Your task to perform on an android device: Clear the shopping cart on ebay. Search for bose quietcomfort 35 on ebay, select the first entry, and add it to the cart. Image 0: 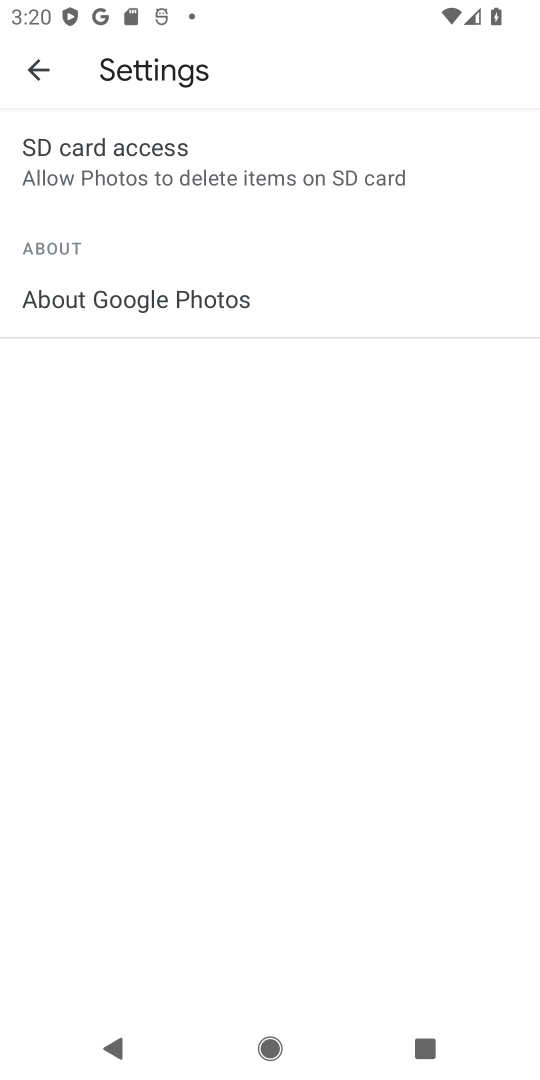
Step 0: press home button
Your task to perform on an android device: Clear the shopping cart on ebay. Search for bose quietcomfort 35 on ebay, select the first entry, and add it to the cart. Image 1: 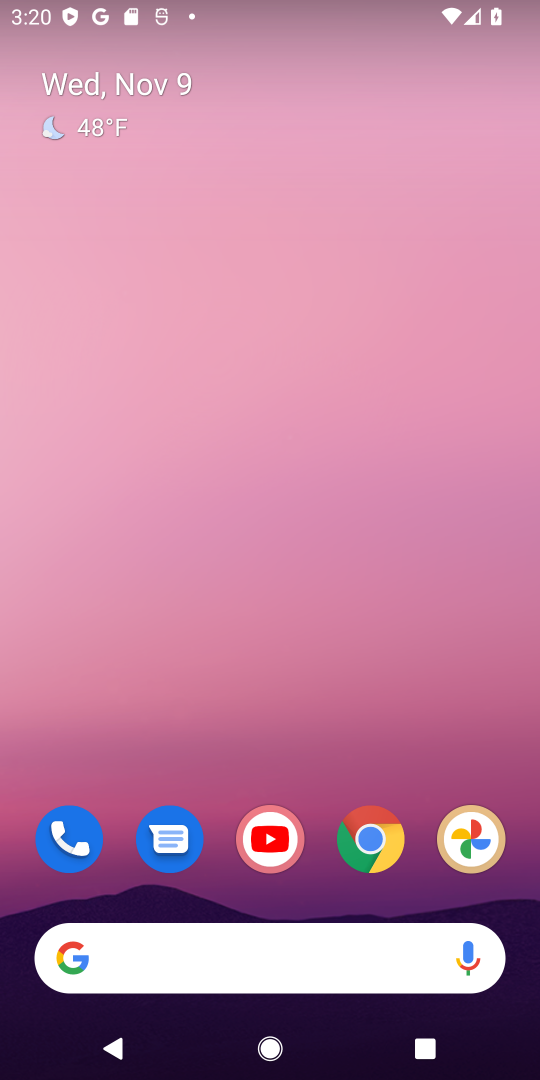
Step 1: drag from (306, 881) to (351, 236)
Your task to perform on an android device: Clear the shopping cart on ebay. Search for bose quietcomfort 35 on ebay, select the first entry, and add it to the cart. Image 2: 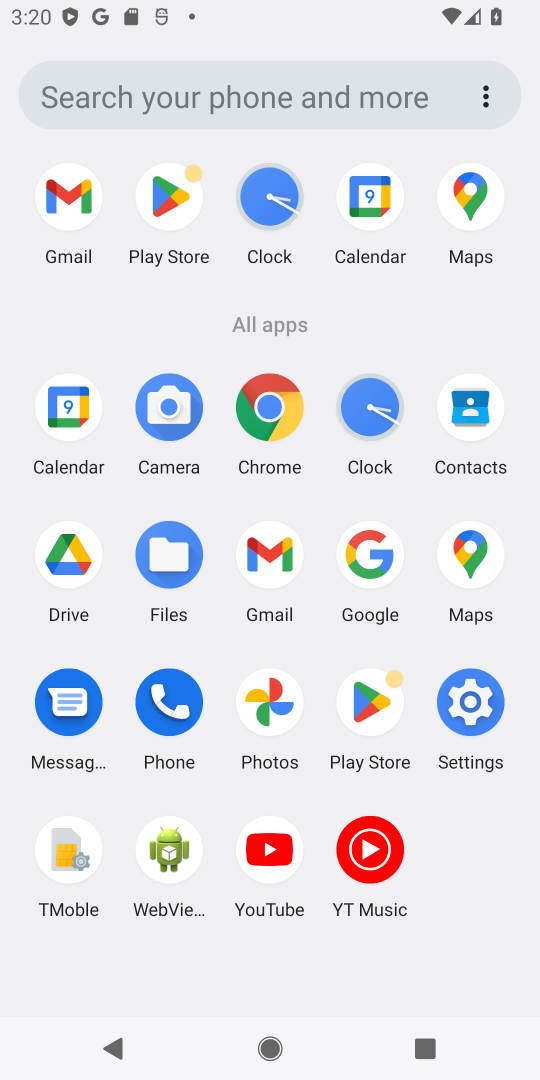
Step 2: click (266, 412)
Your task to perform on an android device: Clear the shopping cart on ebay. Search for bose quietcomfort 35 on ebay, select the first entry, and add it to the cart. Image 3: 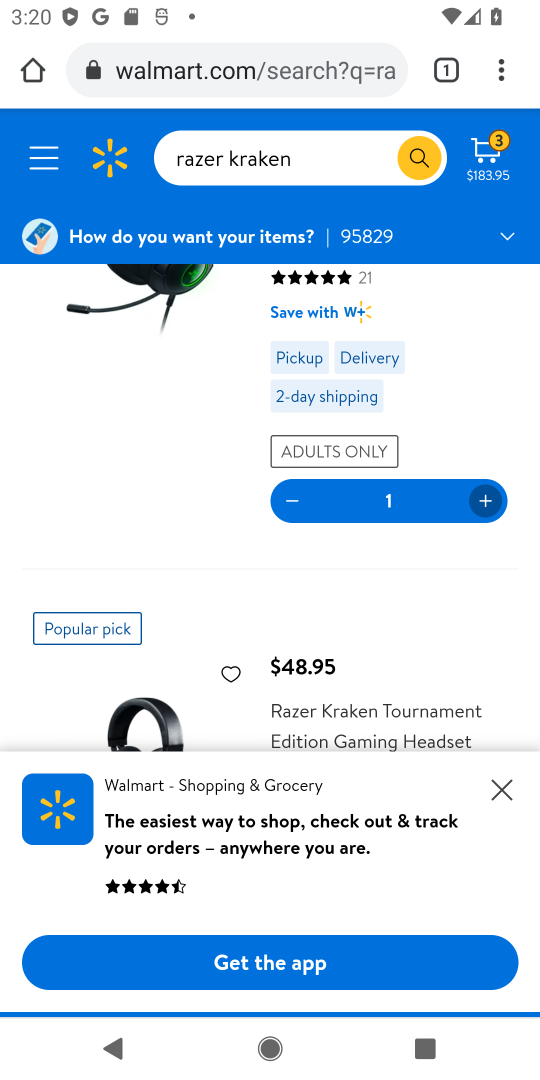
Step 3: click (335, 63)
Your task to perform on an android device: Clear the shopping cart on ebay. Search for bose quietcomfort 35 on ebay, select the first entry, and add it to the cart. Image 4: 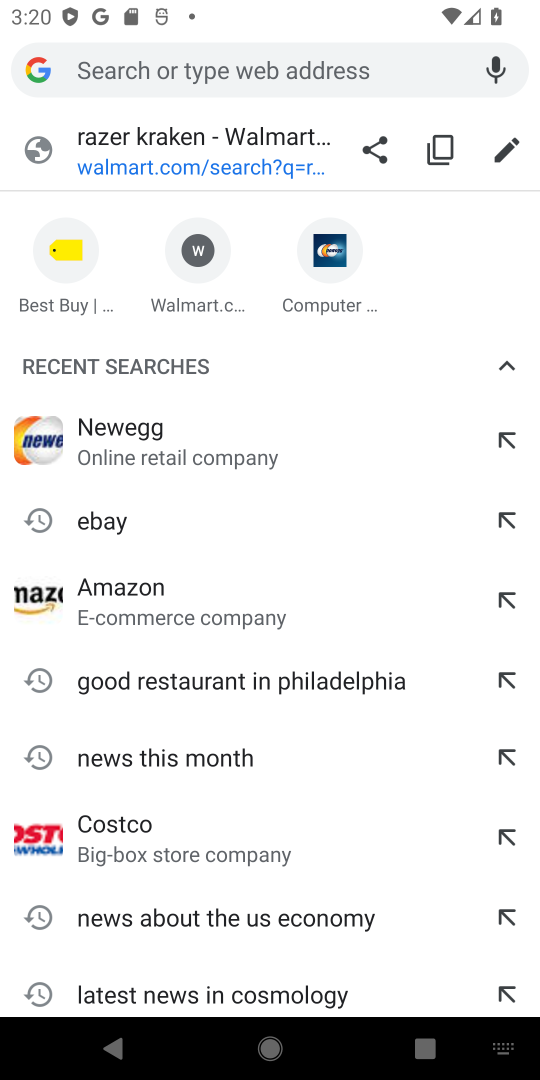
Step 4: type "ebay.com"
Your task to perform on an android device: Clear the shopping cart on ebay. Search for bose quietcomfort 35 on ebay, select the first entry, and add it to the cart. Image 5: 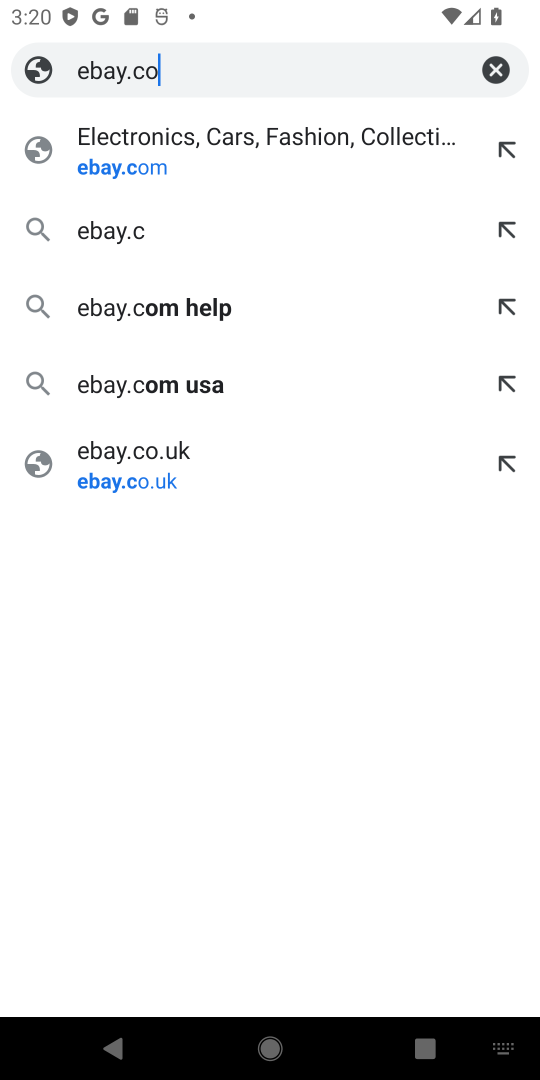
Step 5: press enter
Your task to perform on an android device: Clear the shopping cart on ebay. Search for bose quietcomfort 35 on ebay, select the first entry, and add it to the cart. Image 6: 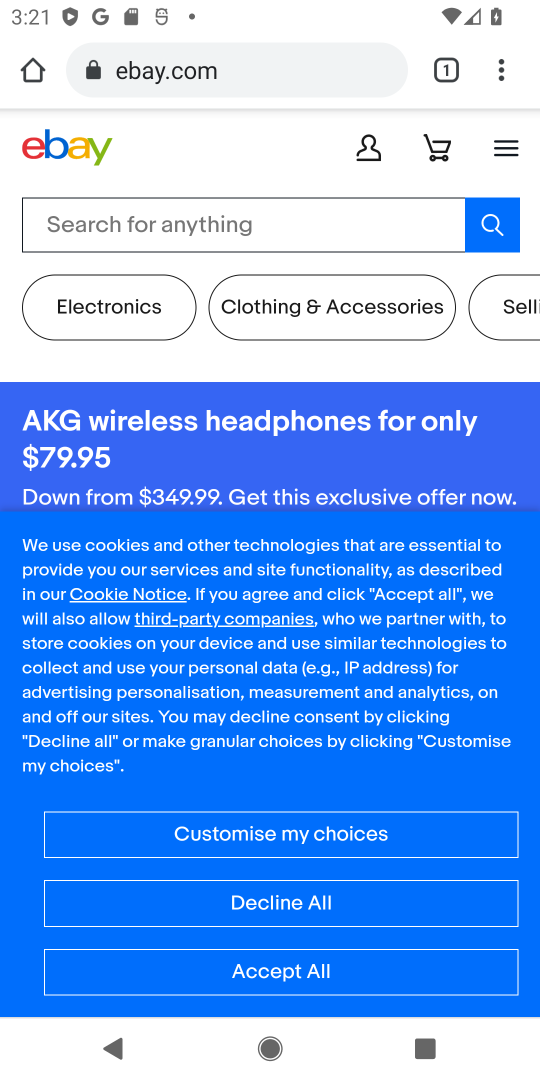
Step 6: click (427, 146)
Your task to perform on an android device: Clear the shopping cart on ebay. Search for bose quietcomfort 35 on ebay, select the first entry, and add it to the cart. Image 7: 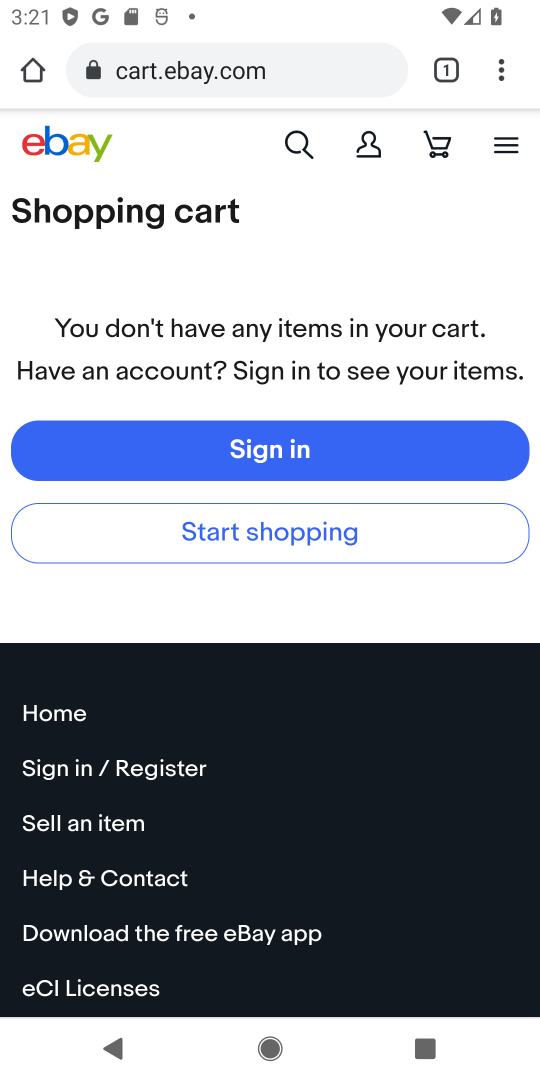
Step 7: click (281, 542)
Your task to perform on an android device: Clear the shopping cart on ebay. Search for bose quietcomfort 35 on ebay, select the first entry, and add it to the cart. Image 8: 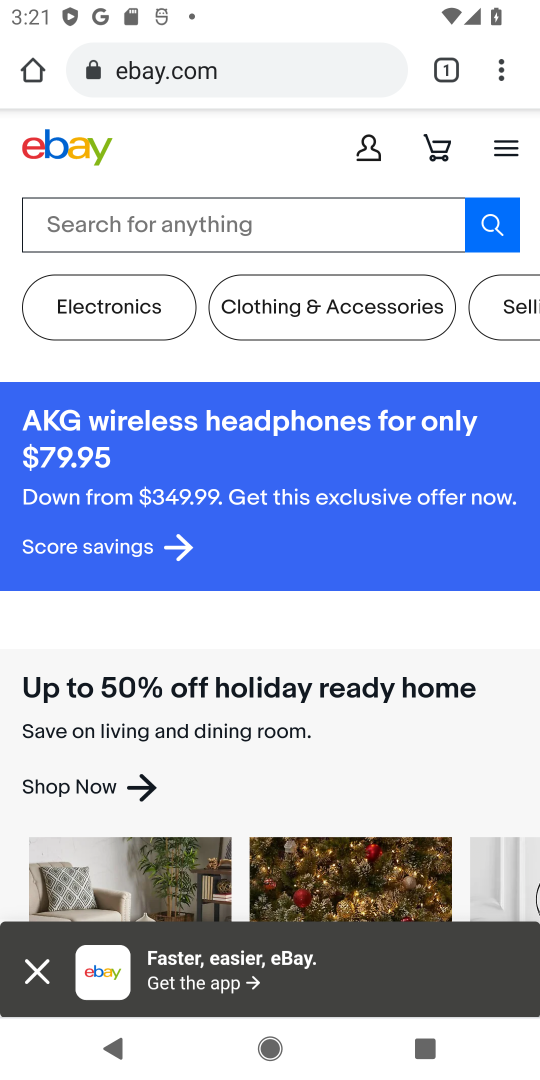
Step 8: click (333, 220)
Your task to perform on an android device: Clear the shopping cart on ebay. Search for bose quietcomfort 35 on ebay, select the first entry, and add it to the cart. Image 9: 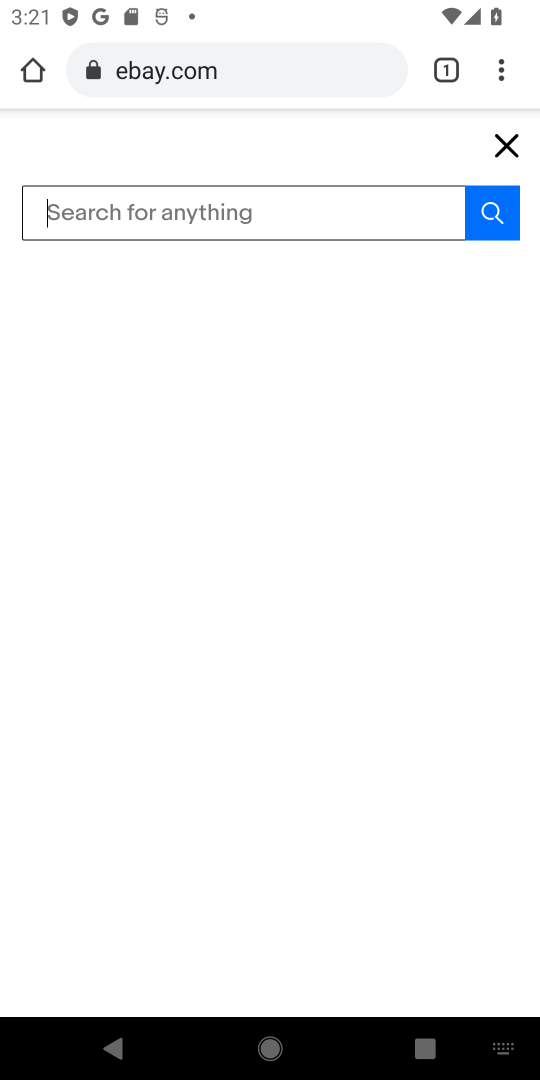
Step 9: type "bose quietcomfort 35"
Your task to perform on an android device: Clear the shopping cart on ebay. Search for bose quietcomfort 35 on ebay, select the first entry, and add it to the cart. Image 10: 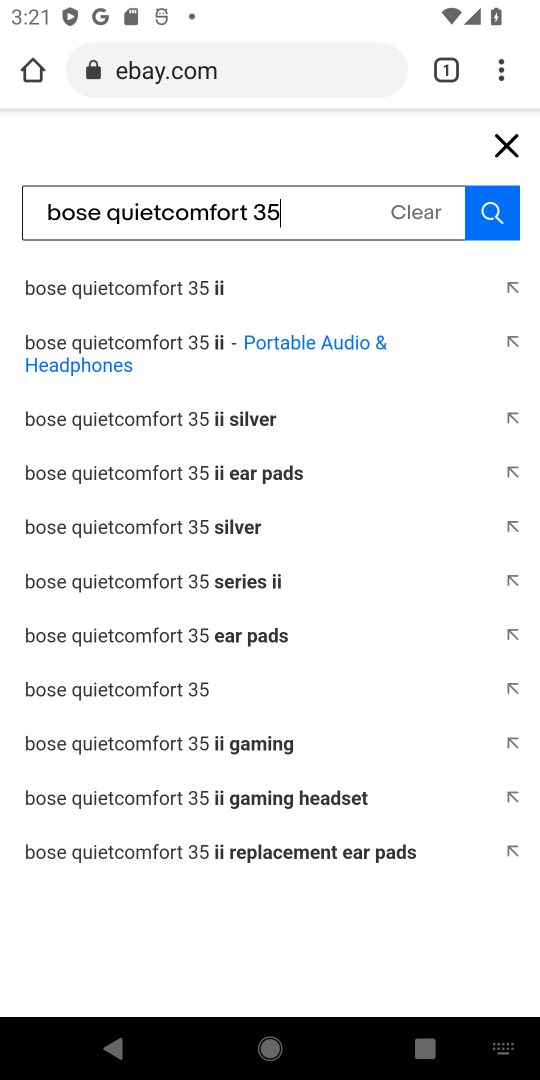
Step 10: press enter
Your task to perform on an android device: Clear the shopping cart on ebay. Search for bose quietcomfort 35 on ebay, select the first entry, and add it to the cart. Image 11: 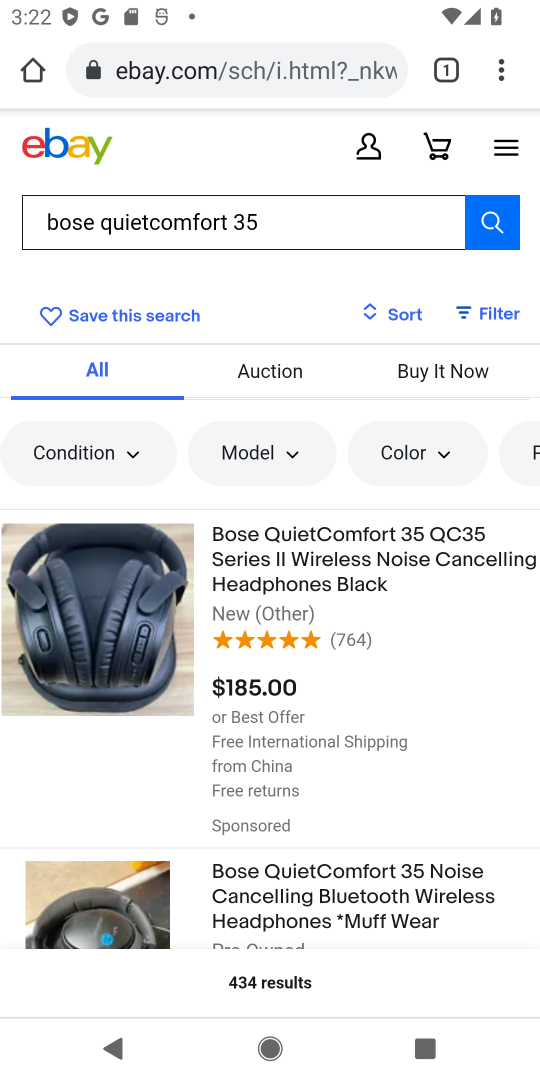
Step 11: click (329, 571)
Your task to perform on an android device: Clear the shopping cart on ebay. Search for bose quietcomfort 35 on ebay, select the first entry, and add it to the cart. Image 12: 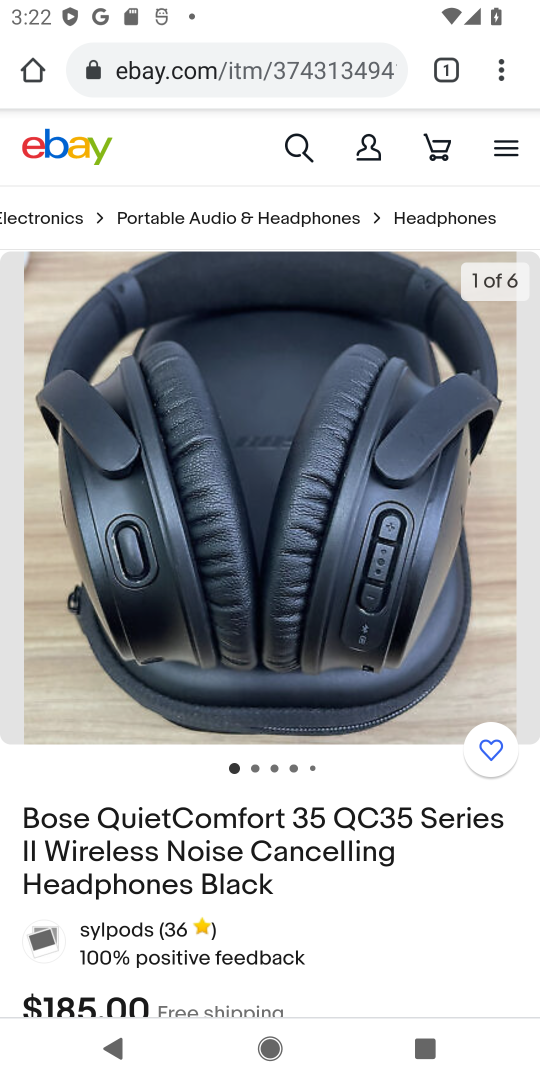
Step 12: drag from (346, 868) to (332, 234)
Your task to perform on an android device: Clear the shopping cart on ebay. Search for bose quietcomfort 35 on ebay, select the first entry, and add it to the cart. Image 13: 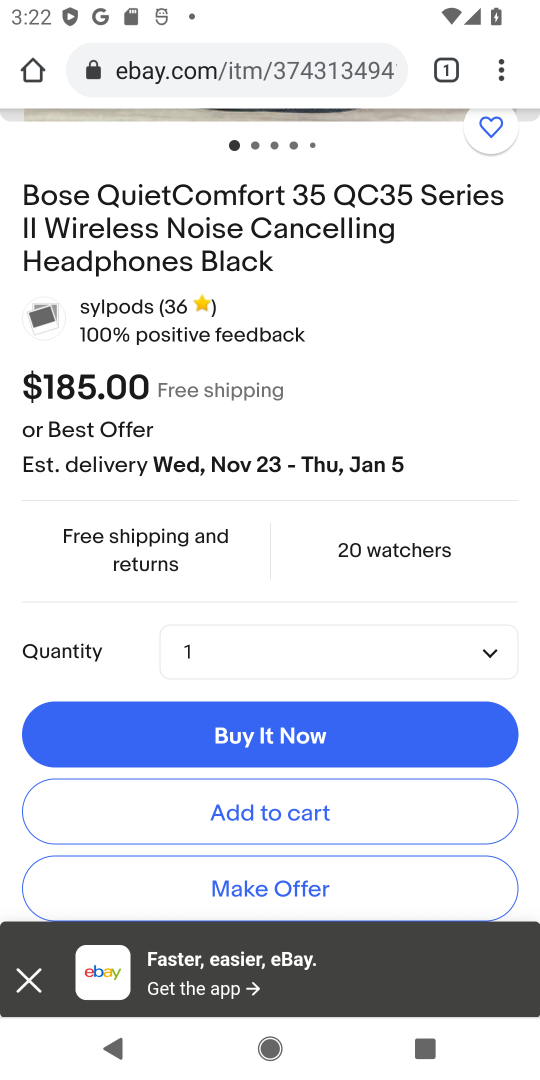
Step 13: click (305, 822)
Your task to perform on an android device: Clear the shopping cart on ebay. Search for bose quietcomfort 35 on ebay, select the first entry, and add it to the cart. Image 14: 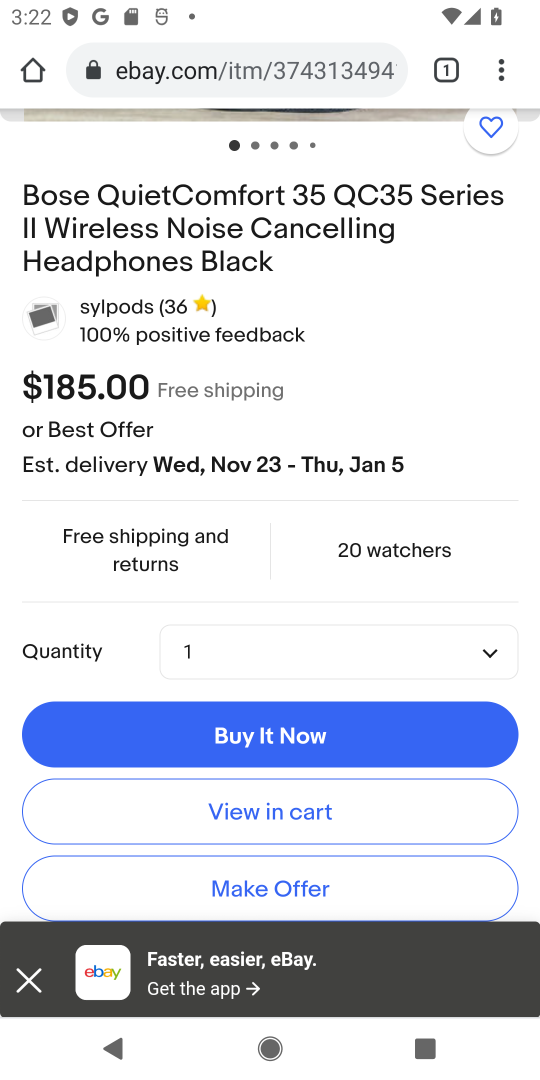
Step 14: task complete